Your task to perform on an android device: toggle notifications settings in the gmail app Image 0: 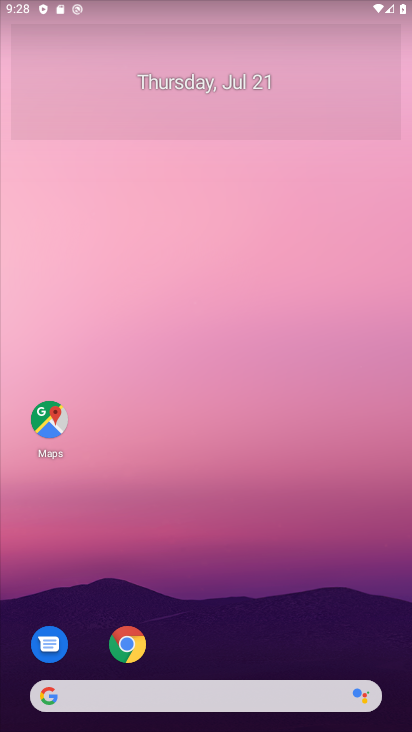
Step 0: task complete